Your task to perform on an android device: Look up the best rated video games on bestbuy.com Image 0: 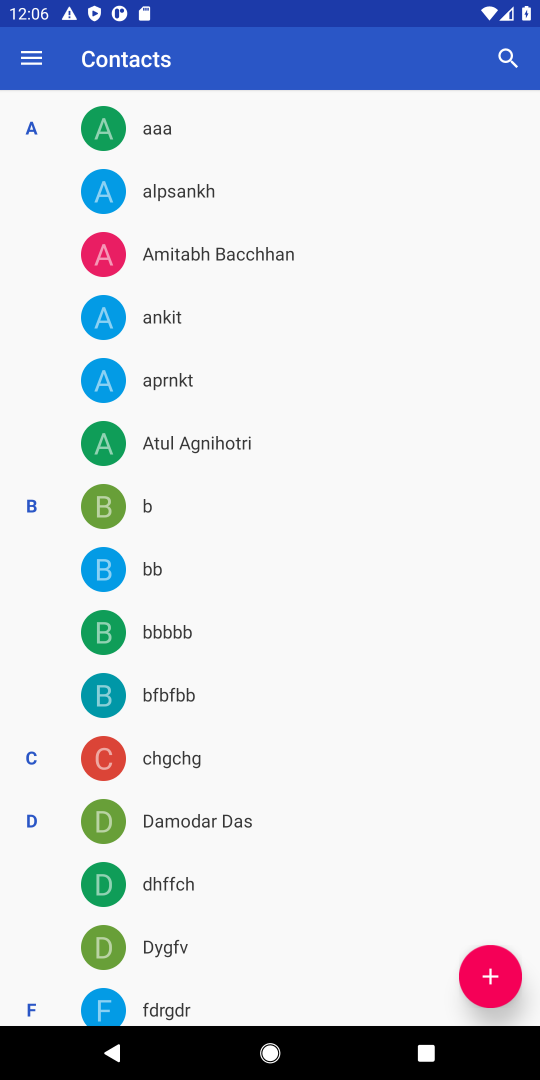
Step 0: press home button
Your task to perform on an android device: Look up the best rated video games on bestbuy.com Image 1: 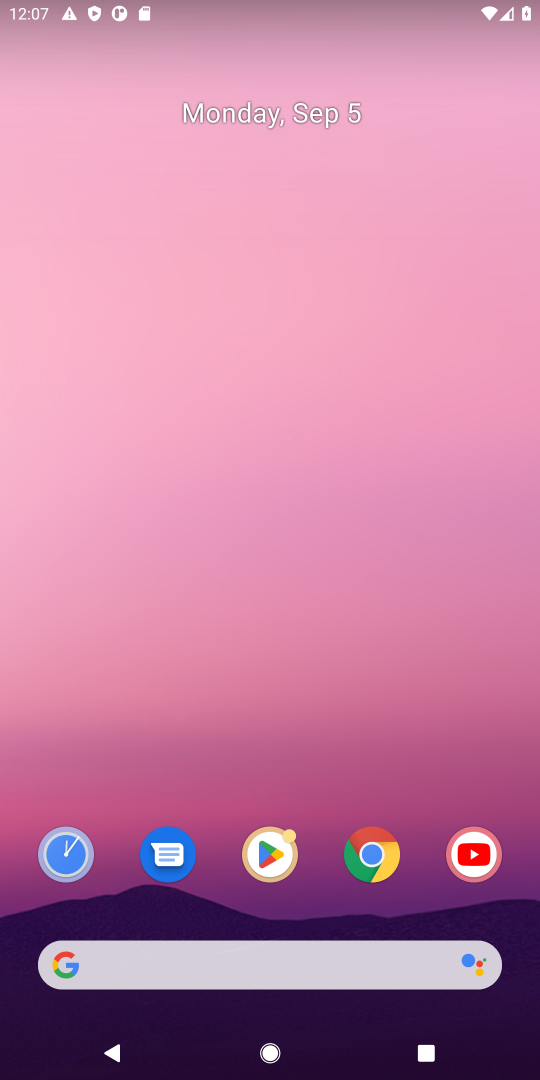
Step 1: click (378, 954)
Your task to perform on an android device: Look up the best rated video games on bestbuy.com Image 2: 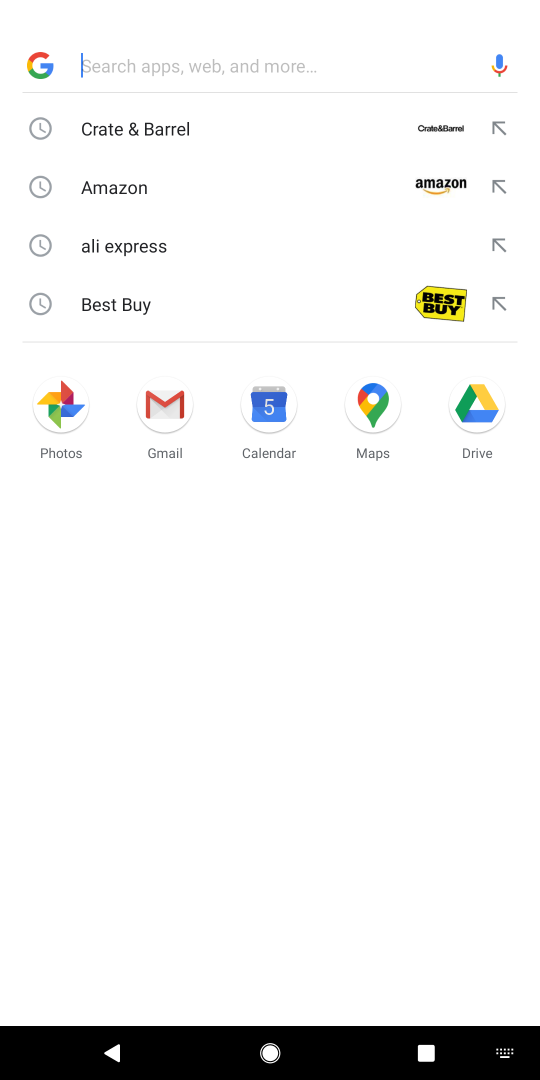
Step 2: type "bestbuy.com"
Your task to perform on an android device: Look up the best rated video games on bestbuy.com Image 3: 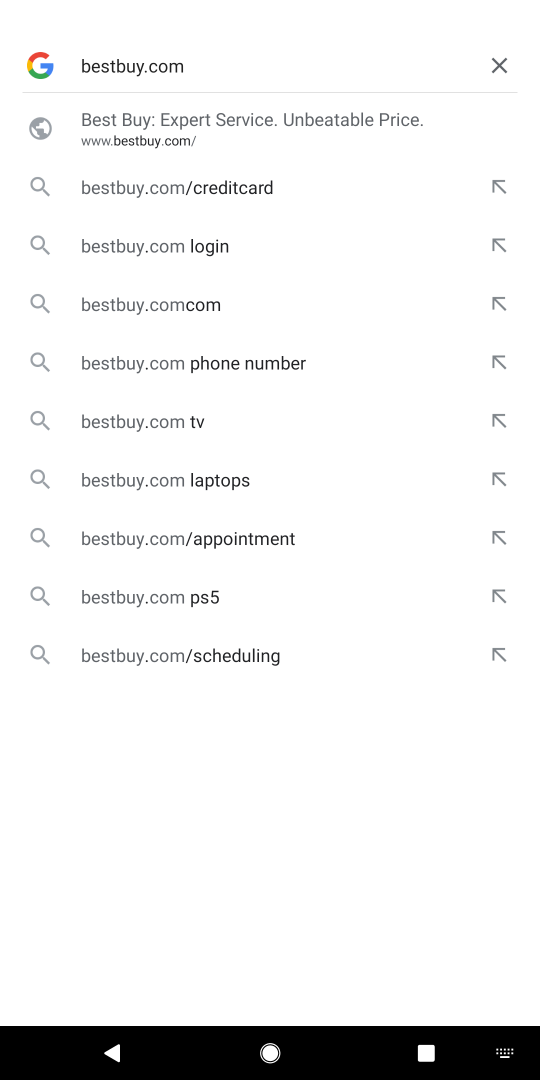
Step 3: press enter
Your task to perform on an android device: Look up the best rated video games on bestbuy.com Image 4: 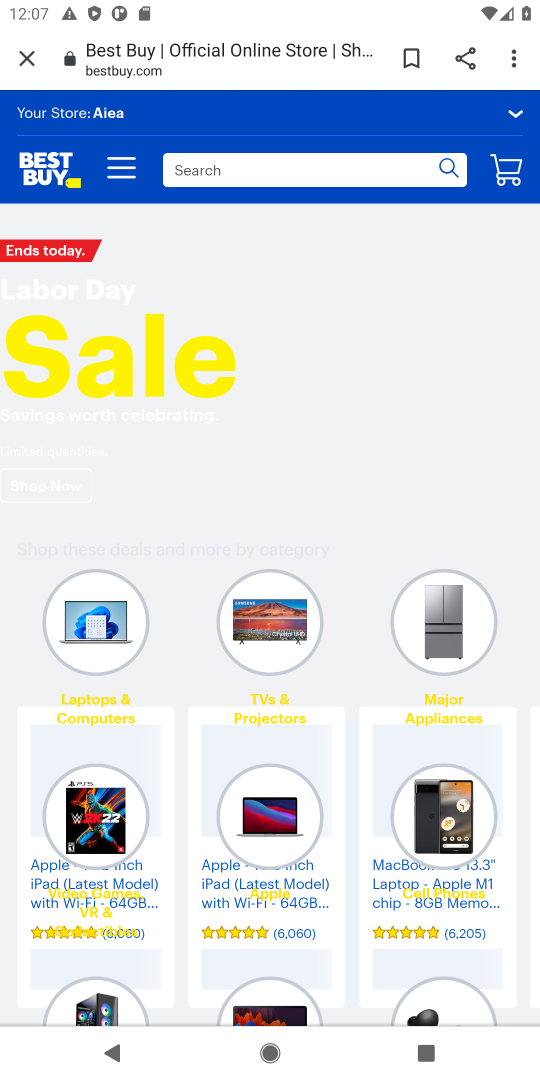
Step 4: click (252, 161)
Your task to perform on an android device: Look up the best rated video games on bestbuy.com Image 5: 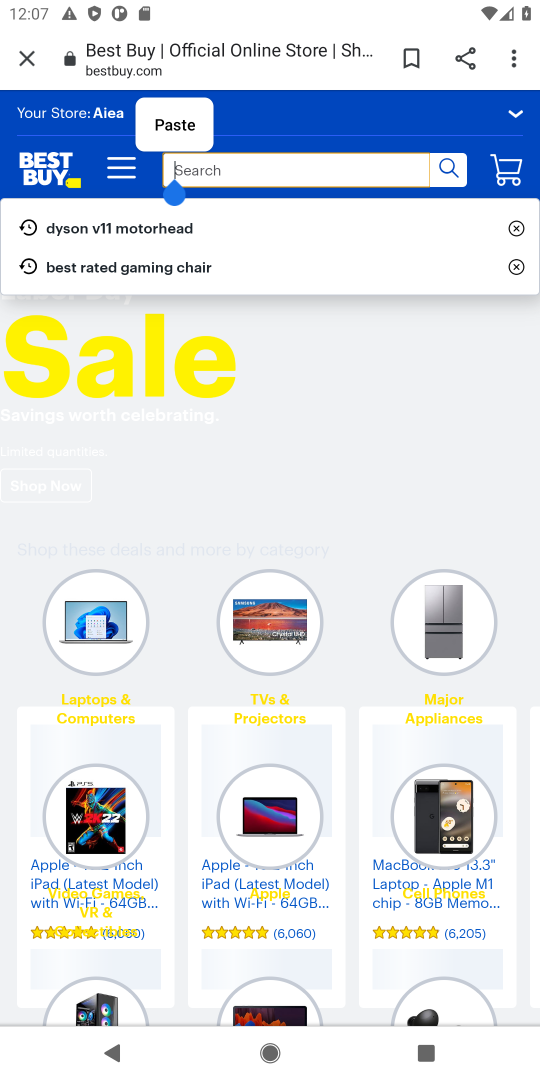
Step 5: type "best rated games"
Your task to perform on an android device: Look up the best rated video games on bestbuy.com Image 6: 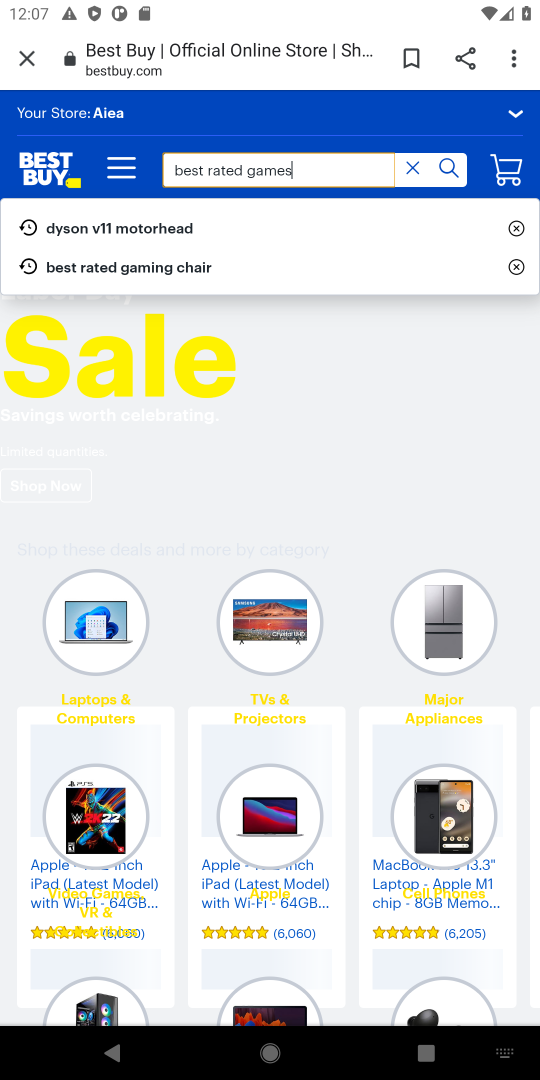
Step 6: press enter
Your task to perform on an android device: Look up the best rated video games on bestbuy.com Image 7: 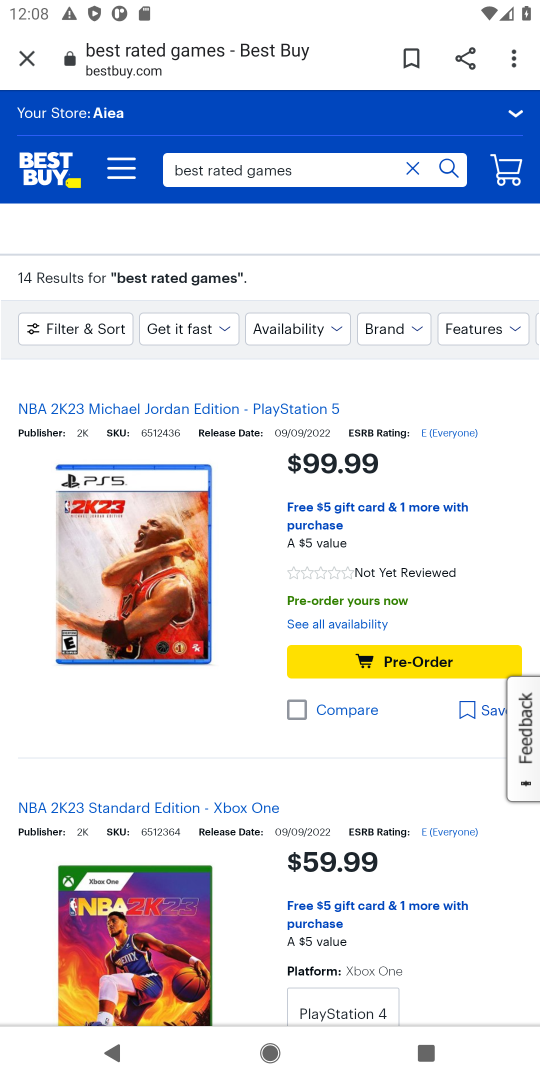
Step 7: task complete